Your task to perform on an android device: Go to calendar. Show me events next week Image 0: 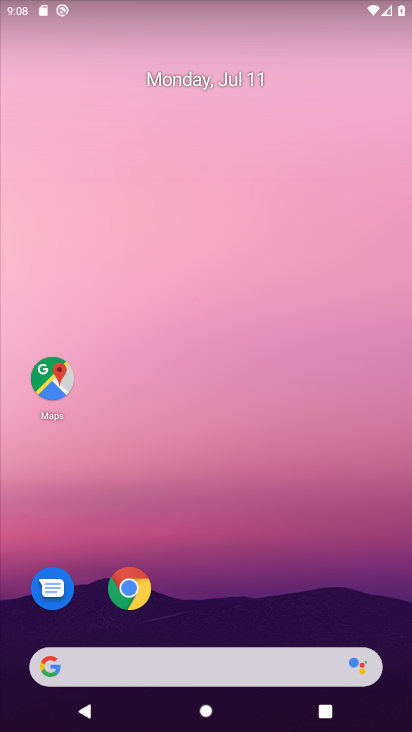
Step 0: drag from (203, 566) to (236, 345)
Your task to perform on an android device: Go to calendar. Show me events next week Image 1: 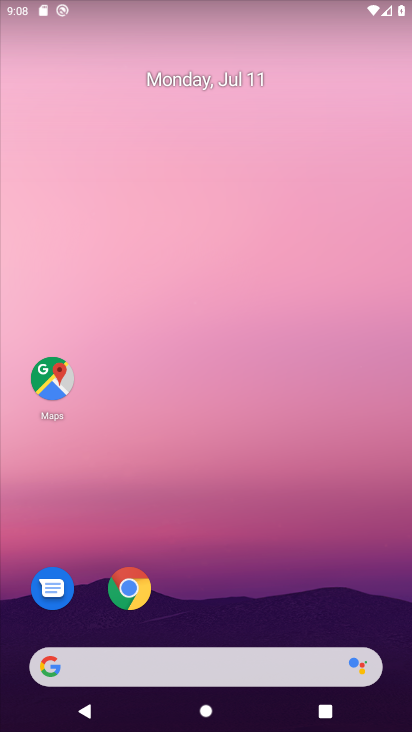
Step 1: drag from (201, 628) to (209, 17)
Your task to perform on an android device: Go to calendar. Show me events next week Image 2: 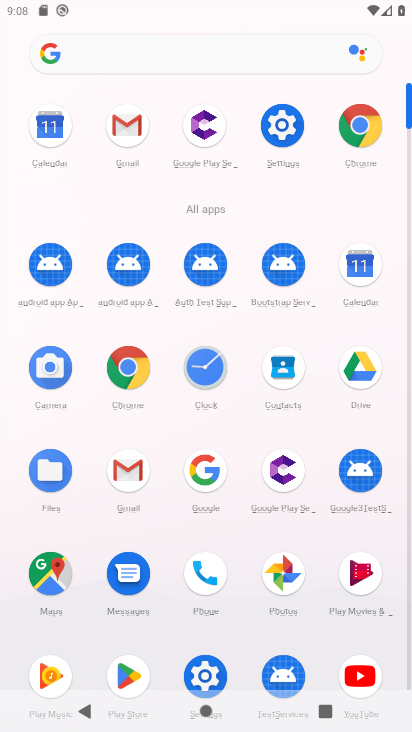
Step 2: click (360, 258)
Your task to perform on an android device: Go to calendar. Show me events next week Image 3: 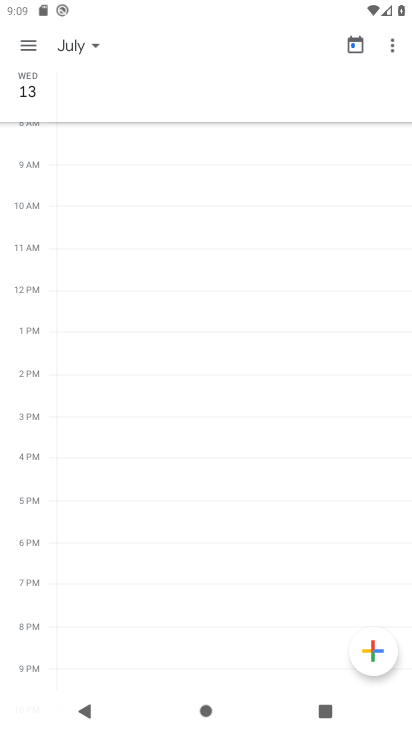
Step 3: click (23, 32)
Your task to perform on an android device: Go to calendar. Show me events next week Image 4: 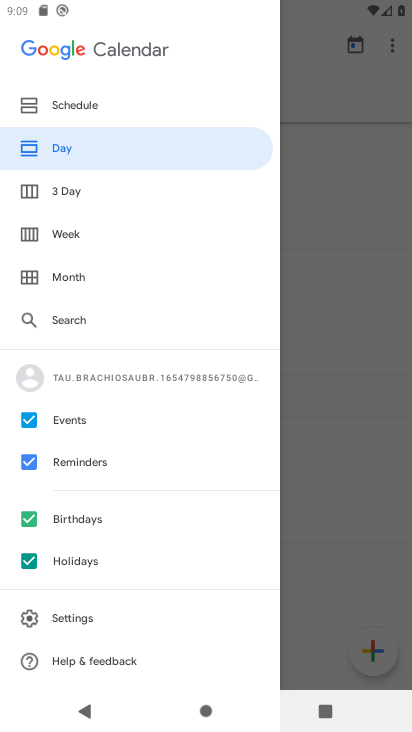
Step 4: click (70, 223)
Your task to perform on an android device: Go to calendar. Show me events next week Image 5: 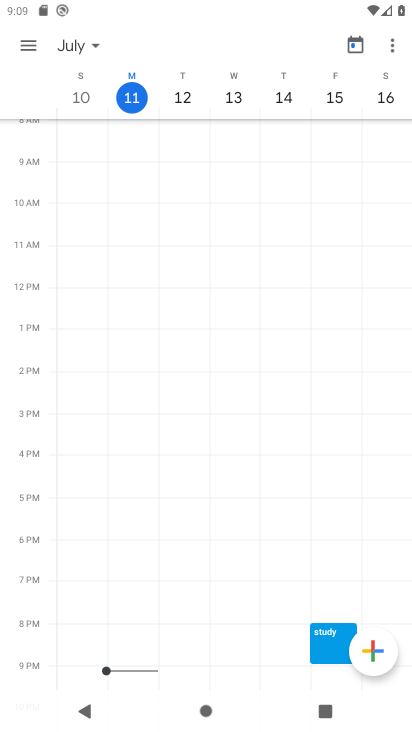
Step 5: task complete